Your task to perform on an android device: turn off improve location accuracy Image 0: 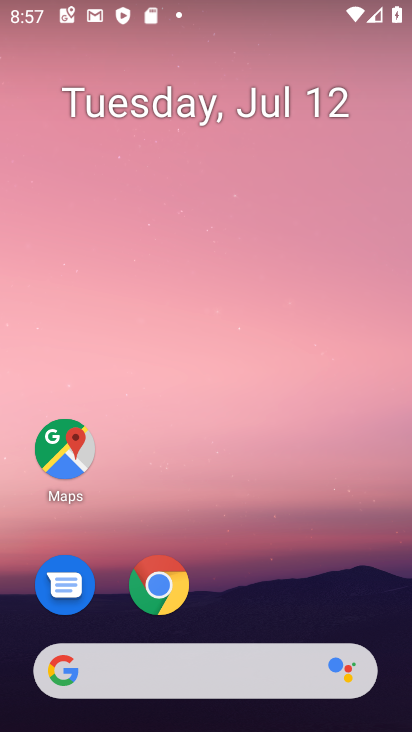
Step 0: drag from (259, 565) to (225, 54)
Your task to perform on an android device: turn off improve location accuracy Image 1: 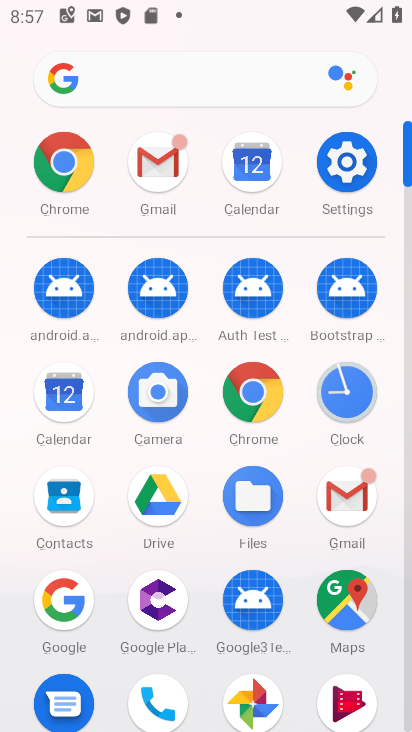
Step 1: click (343, 166)
Your task to perform on an android device: turn off improve location accuracy Image 2: 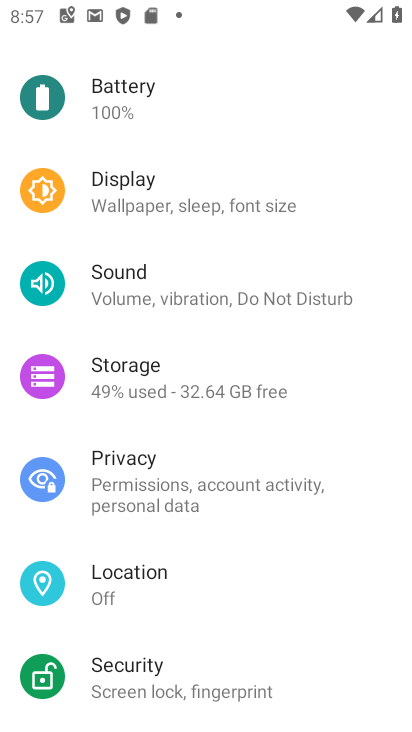
Step 2: click (163, 581)
Your task to perform on an android device: turn off improve location accuracy Image 3: 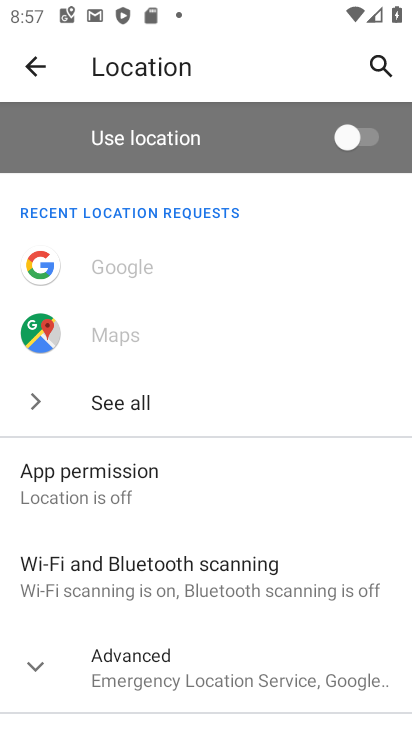
Step 3: click (36, 658)
Your task to perform on an android device: turn off improve location accuracy Image 4: 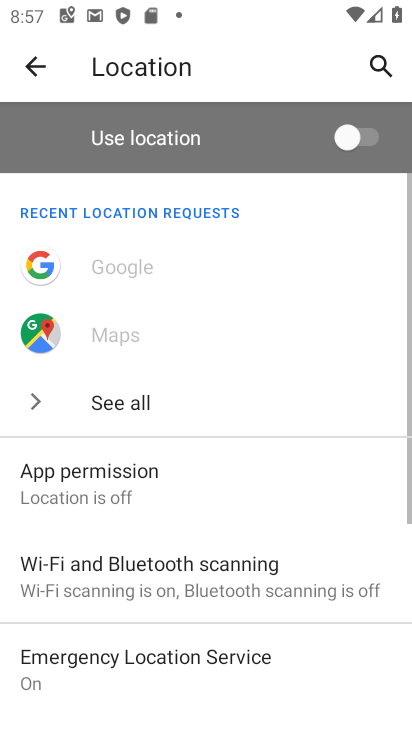
Step 4: drag from (317, 537) to (341, 220)
Your task to perform on an android device: turn off improve location accuracy Image 5: 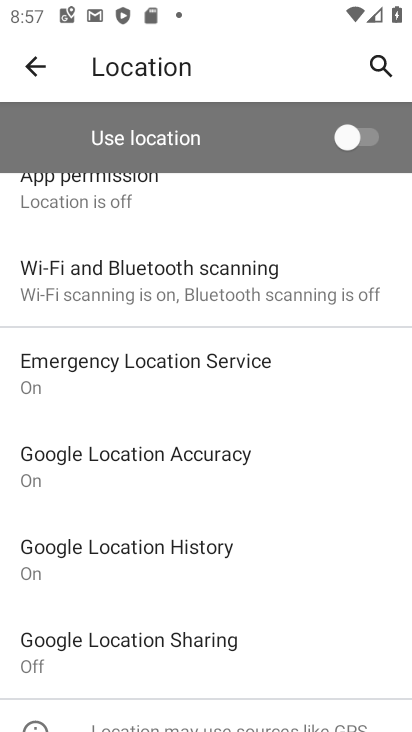
Step 5: click (256, 461)
Your task to perform on an android device: turn off improve location accuracy Image 6: 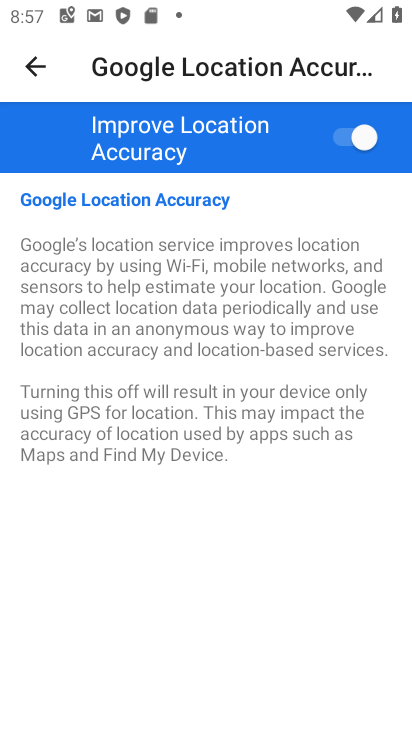
Step 6: click (358, 126)
Your task to perform on an android device: turn off improve location accuracy Image 7: 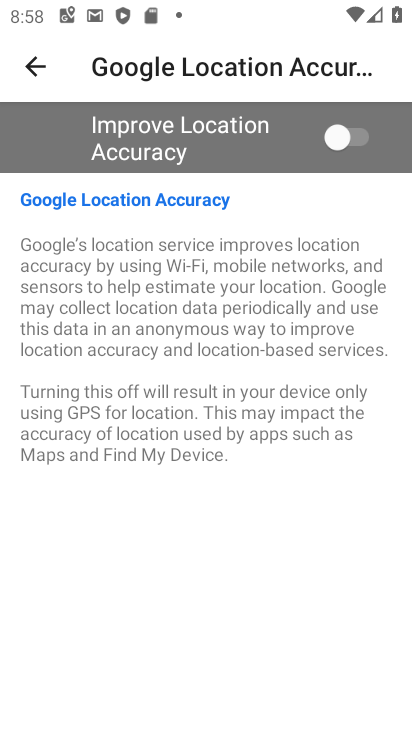
Step 7: task complete